Your task to perform on an android device: turn notification dots off Image 0: 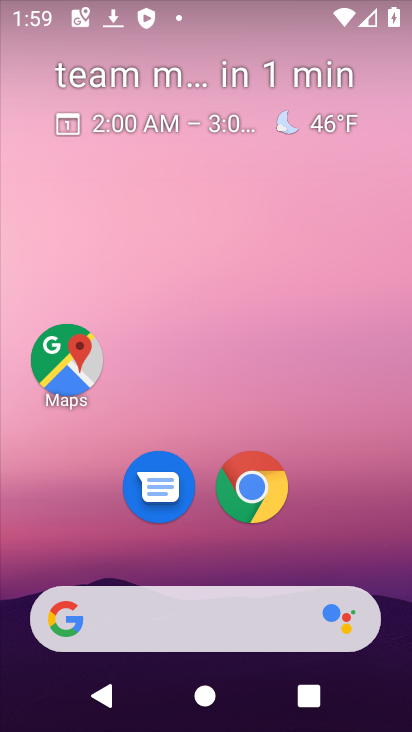
Step 0: drag from (341, 484) to (294, 51)
Your task to perform on an android device: turn notification dots off Image 1: 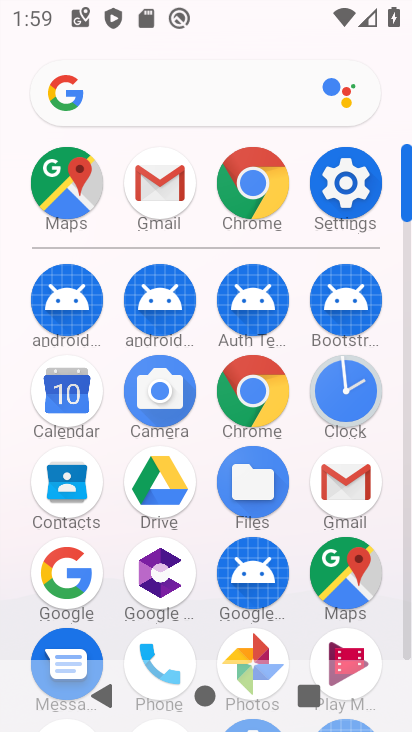
Step 1: click (334, 174)
Your task to perform on an android device: turn notification dots off Image 2: 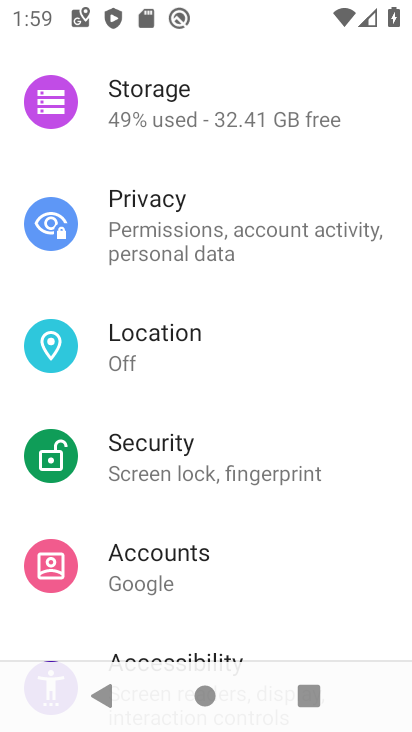
Step 2: drag from (273, 488) to (288, 148)
Your task to perform on an android device: turn notification dots off Image 3: 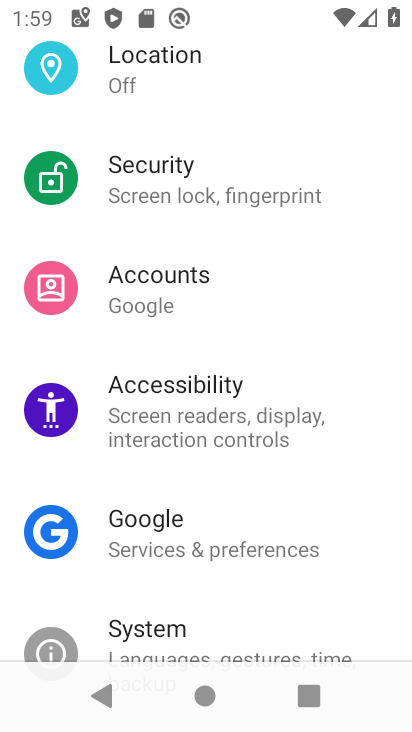
Step 3: drag from (230, 505) to (296, 561)
Your task to perform on an android device: turn notification dots off Image 4: 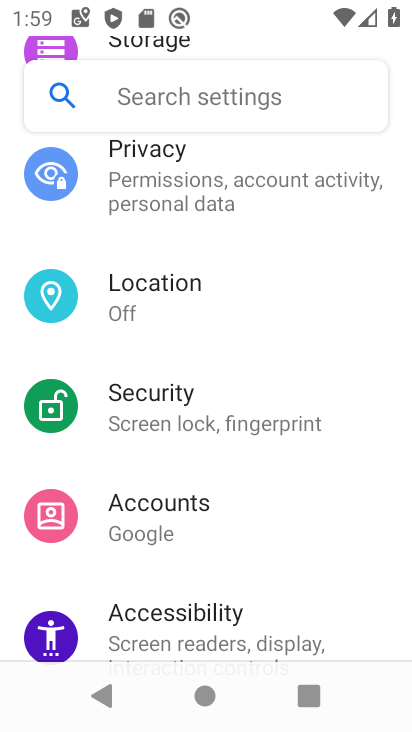
Step 4: drag from (260, 321) to (276, 566)
Your task to perform on an android device: turn notification dots off Image 5: 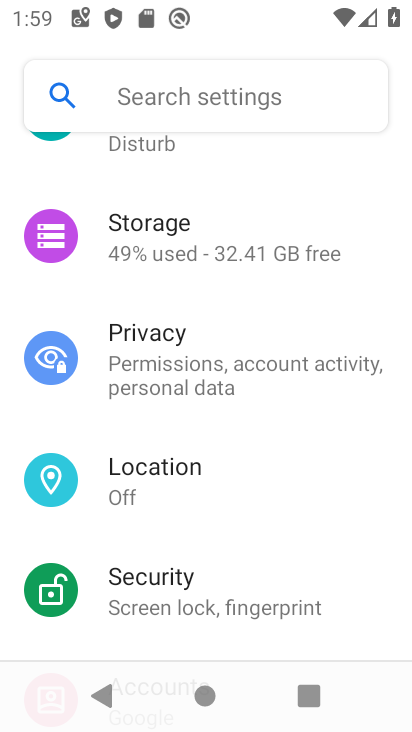
Step 5: drag from (254, 367) to (248, 597)
Your task to perform on an android device: turn notification dots off Image 6: 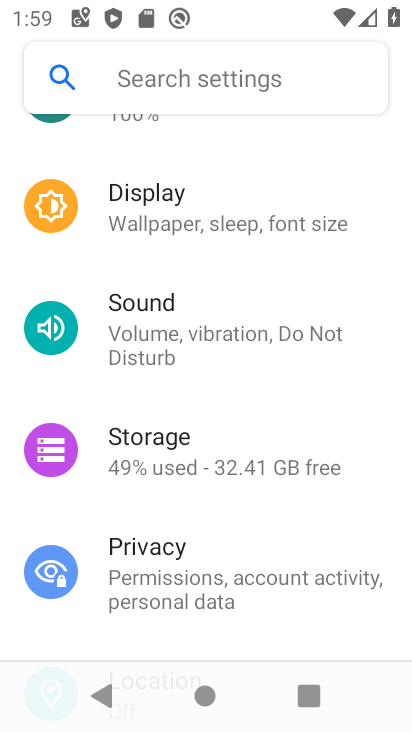
Step 6: drag from (252, 322) to (270, 611)
Your task to perform on an android device: turn notification dots off Image 7: 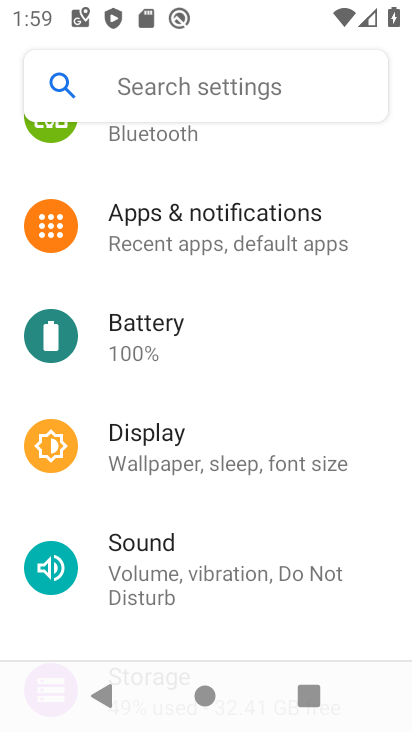
Step 7: click (248, 242)
Your task to perform on an android device: turn notification dots off Image 8: 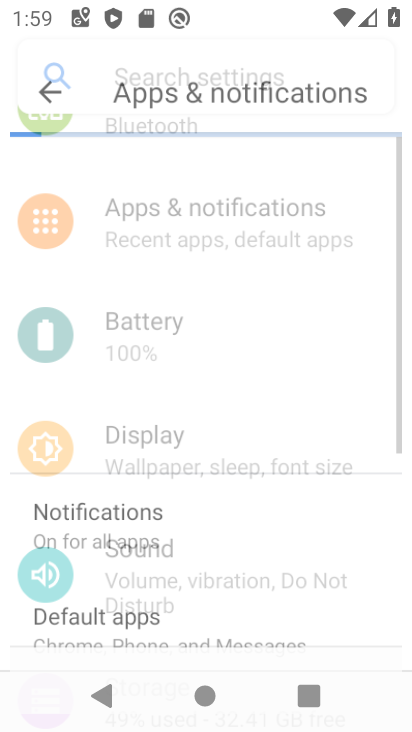
Step 8: click (251, 218)
Your task to perform on an android device: turn notification dots off Image 9: 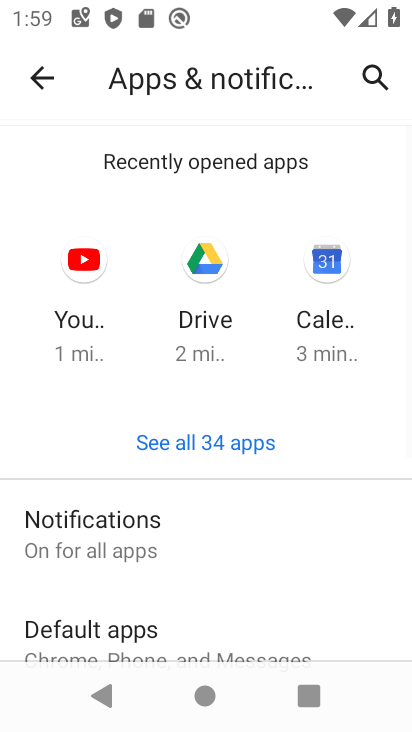
Step 9: drag from (252, 500) to (261, 117)
Your task to perform on an android device: turn notification dots off Image 10: 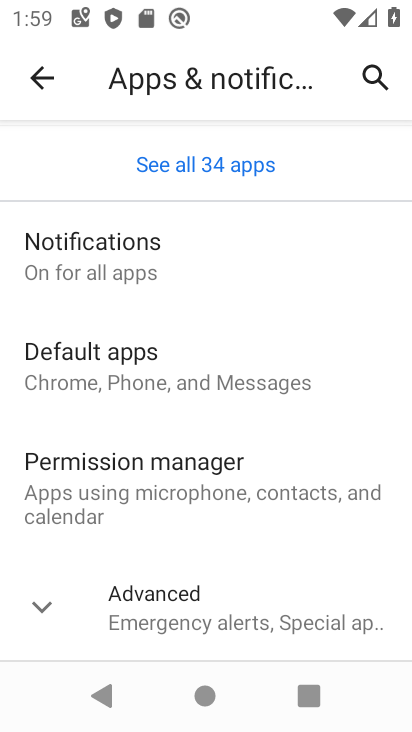
Step 10: click (208, 608)
Your task to perform on an android device: turn notification dots off Image 11: 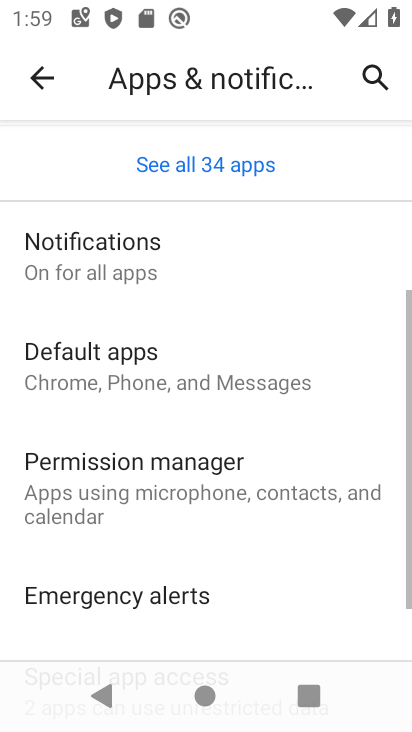
Step 11: drag from (285, 590) to (329, 177)
Your task to perform on an android device: turn notification dots off Image 12: 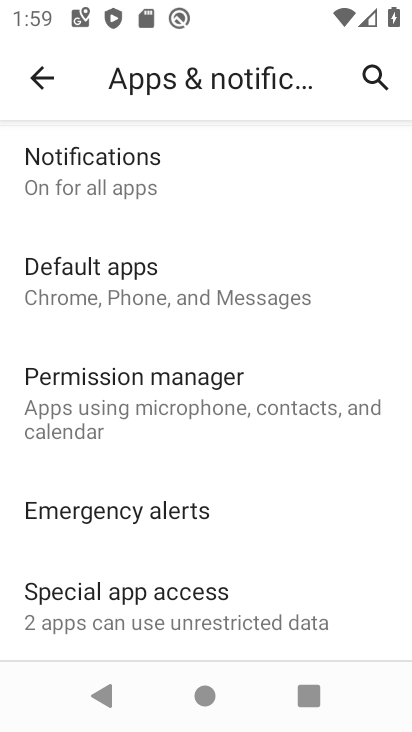
Step 12: drag from (245, 247) to (253, 569)
Your task to perform on an android device: turn notification dots off Image 13: 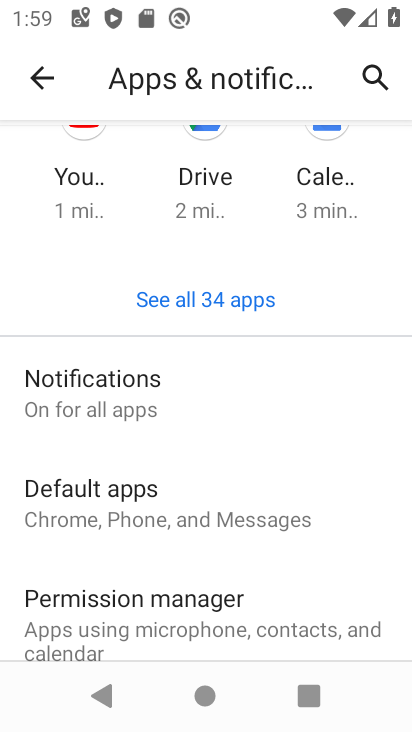
Step 13: click (114, 405)
Your task to perform on an android device: turn notification dots off Image 14: 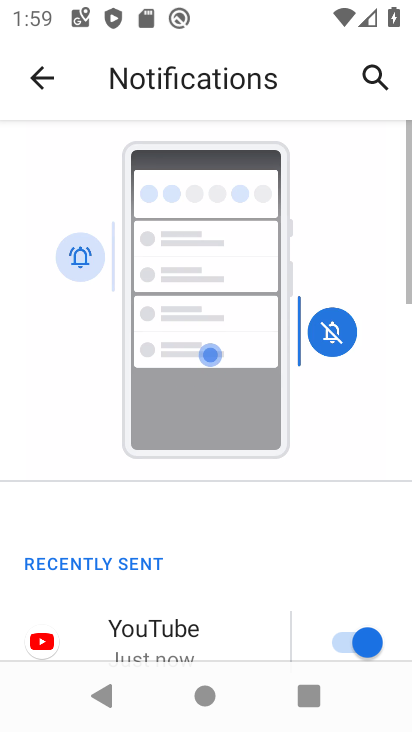
Step 14: drag from (280, 558) to (306, 131)
Your task to perform on an android device: turn notification dots off Image 15: 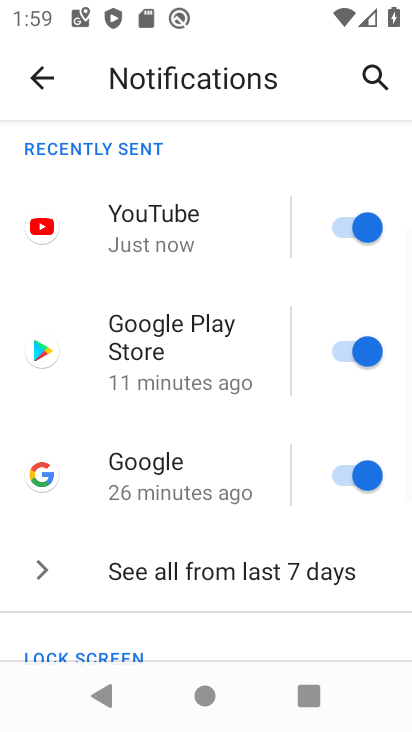
Step 15: drag from (230, 452) to (265, 60)
Your task to perform on an android device: turn notification dots off Image 16: 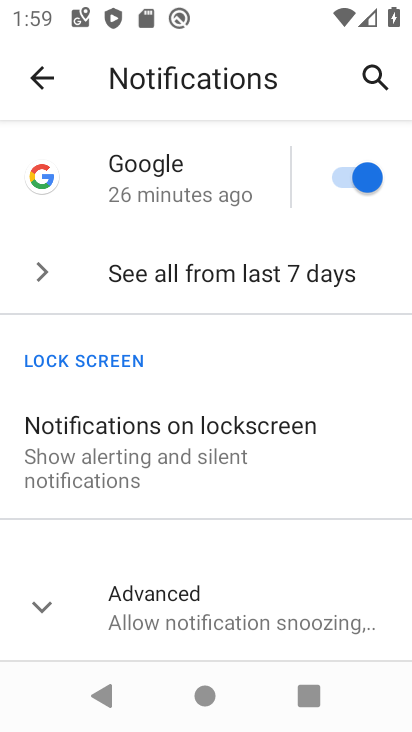
Step 16: drag from (271, 411) to (273, 30)
Your task to perform on an android device: turn notification dots off Image 17: 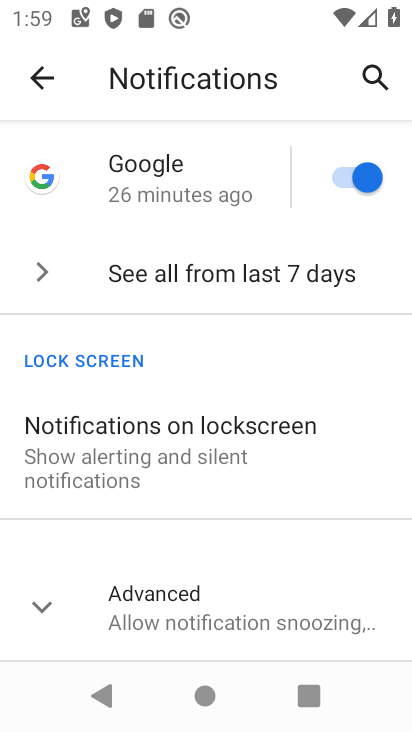
Step 17: click (177, 603)
Your task to perform on an android device: turn notification dots off Image 18: 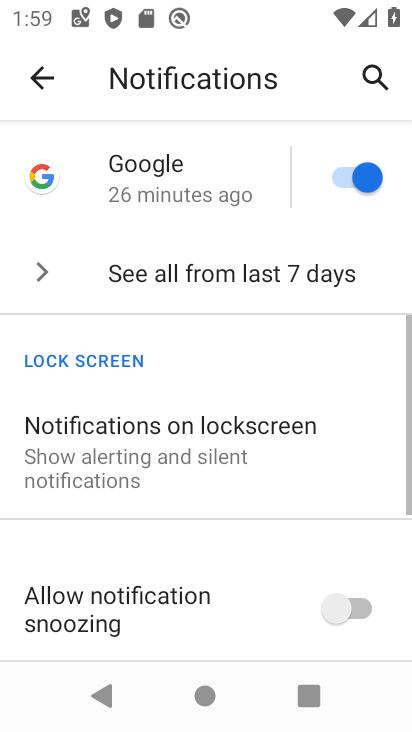
Step 18: task complete